Your task to perform on an android device: Open CNN.com Image 0: 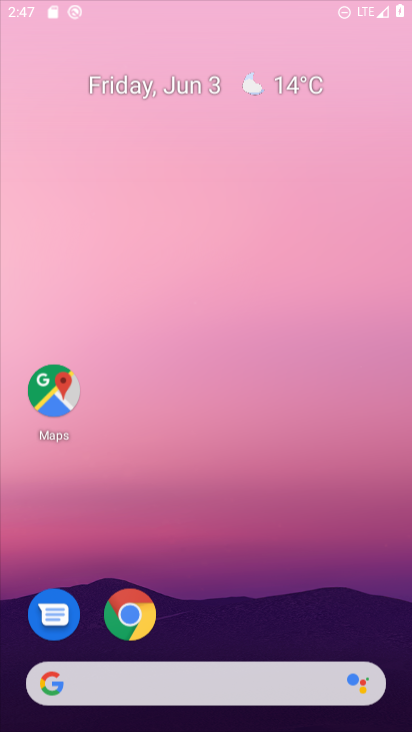
Step 0: click (231, 68)
Your task to perform on an android device: Open CNN.com Image 1: 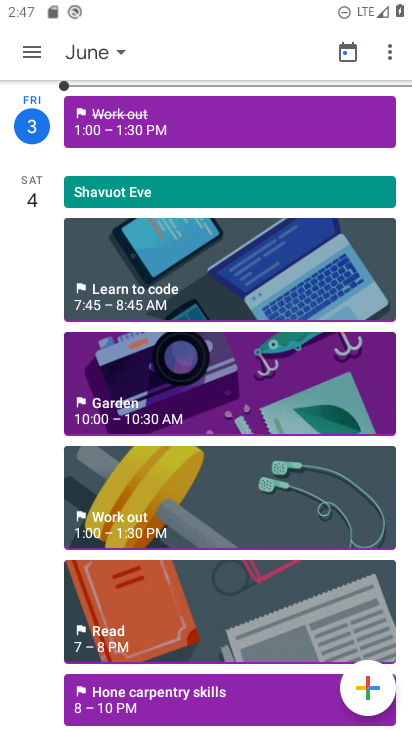
Step 1: drag from (238, 548) to (236, 208)
Your task to perform on an android device: Open CNN.com Image 2: 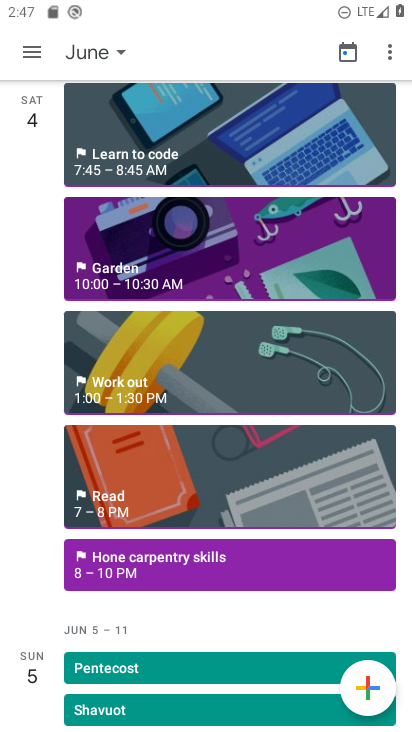
Step 2: drag from (235, 112) to (327, 720)
Your task to perform on an android device: Open CNN.com Image 3: 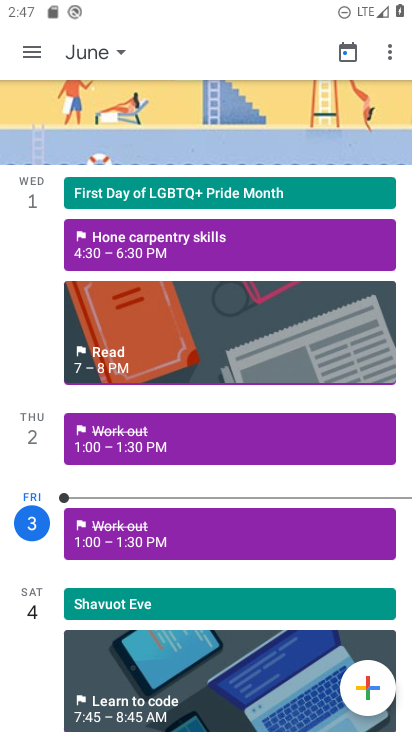
Step 3: drag from (116, 178) to (270, 625)
Your task to perform on an android device: Open CNN.com Image 4: 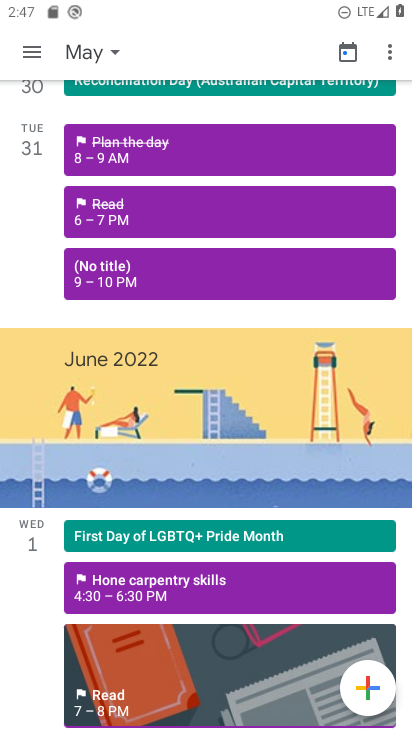
Step 4: drag from (218, 593) to (222, 104)
Your task to perform on an android device: Open CNN.com Image 5: 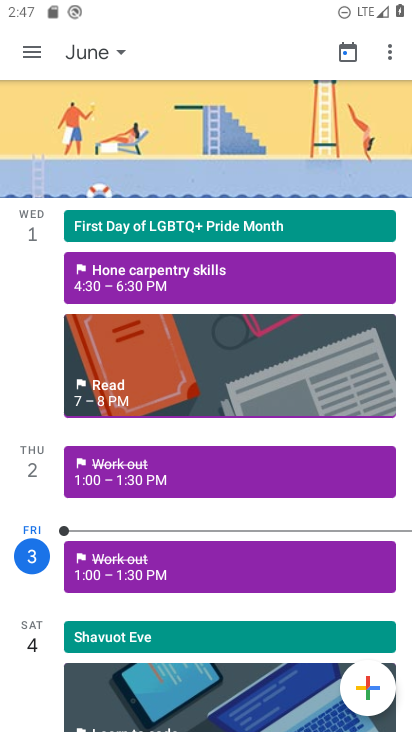
Step 5: press home button
Your task to perform on an android device: Open CNN.com Image 6: 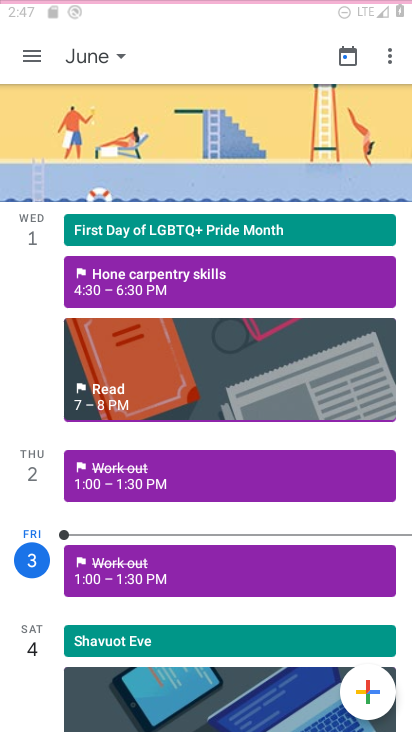
Step 6: drag from (210, 561) to (210, 62)
Your task to perform on an android device: Open CNN.com Image 7: 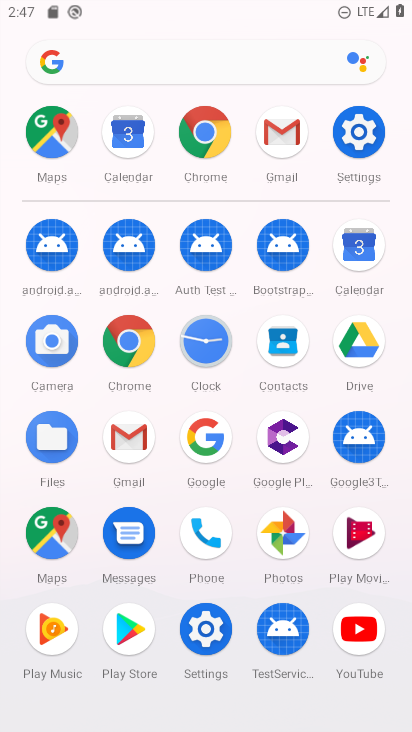
Step 7: click (97, 54)
Your task to perform on an android device: Open CNN.com Image 8: 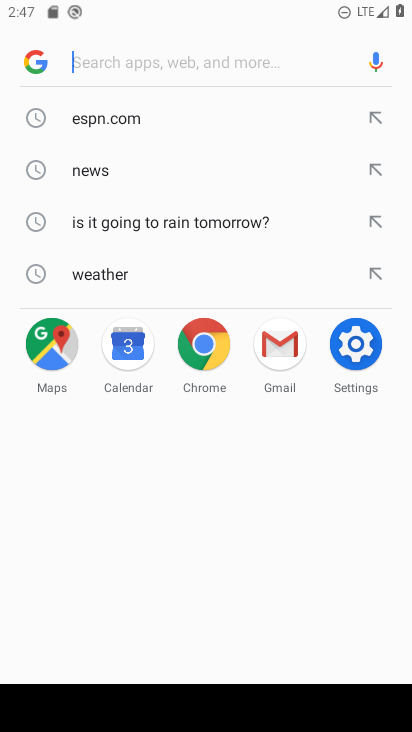
Step 8: type "CNN.com"
Your task to perform on an android device: Open CNN.com Image 9: 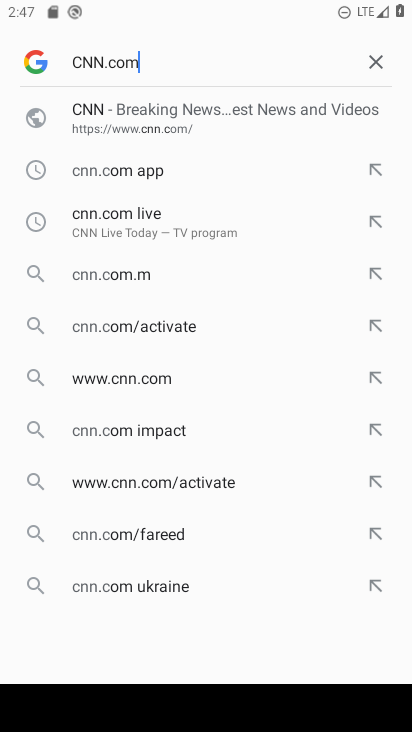
Step 9: type ""
Your task to perform on an android device: Open CNN.com Image 10: 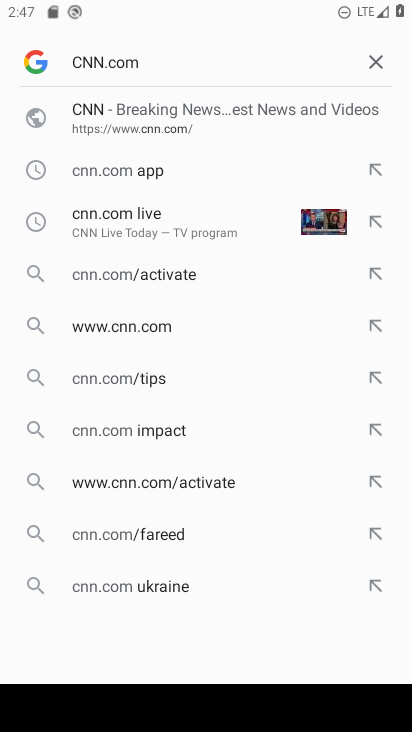
Step 10: click (123, 113)
Your task to perform on an android device: Open CNN.com Image 11: 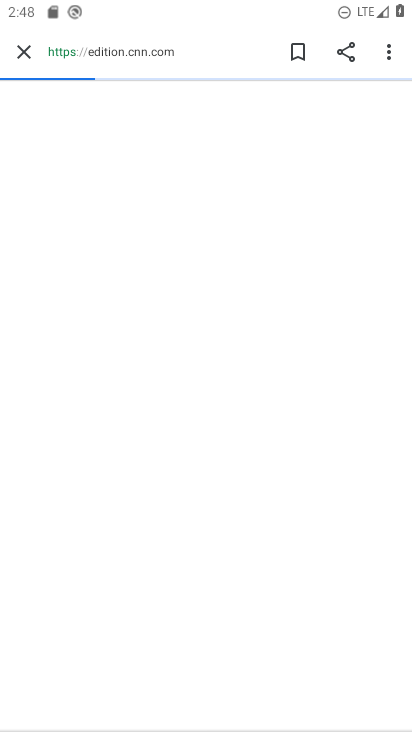
Step 11: task complete